Your task to perform on an android device: open the mobile data screen to see how much data has been used Image 0: 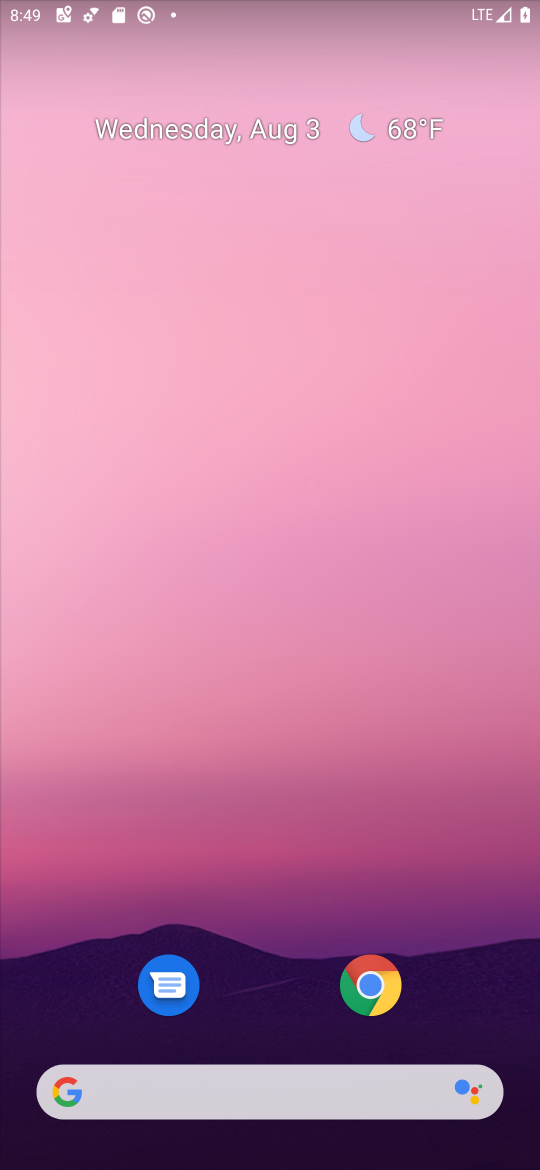
Step 0: drag from (256, 991) to (238, 235)
Your task to perform on an android device: open the mobile data screen to see how much data has been used Image 1: 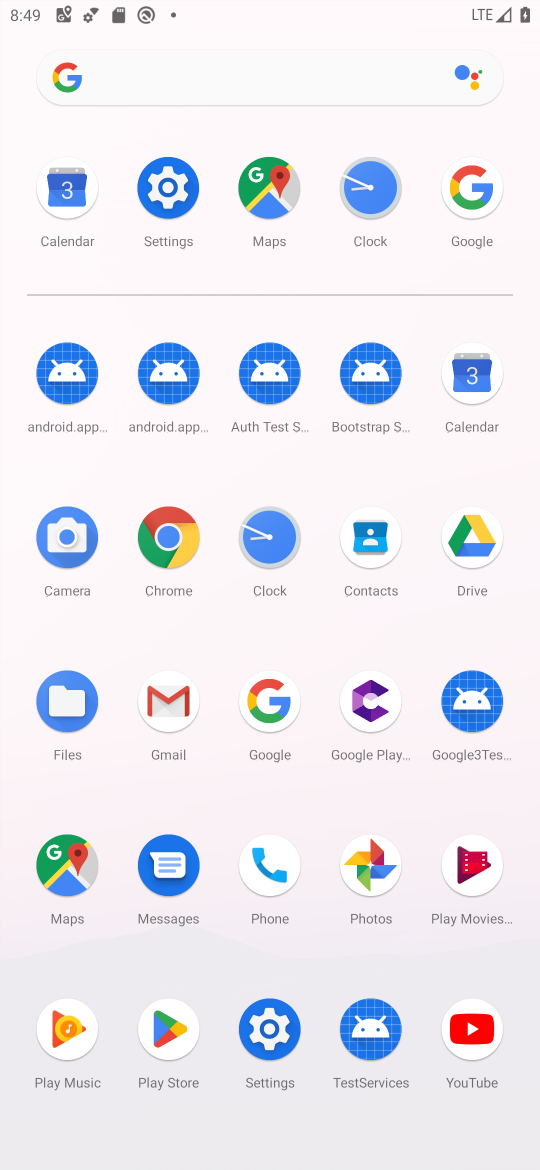
Step 1: click (176, 175)
Your task to perform on an android device: open the mobile data screen to see how much data has been used Image 2: 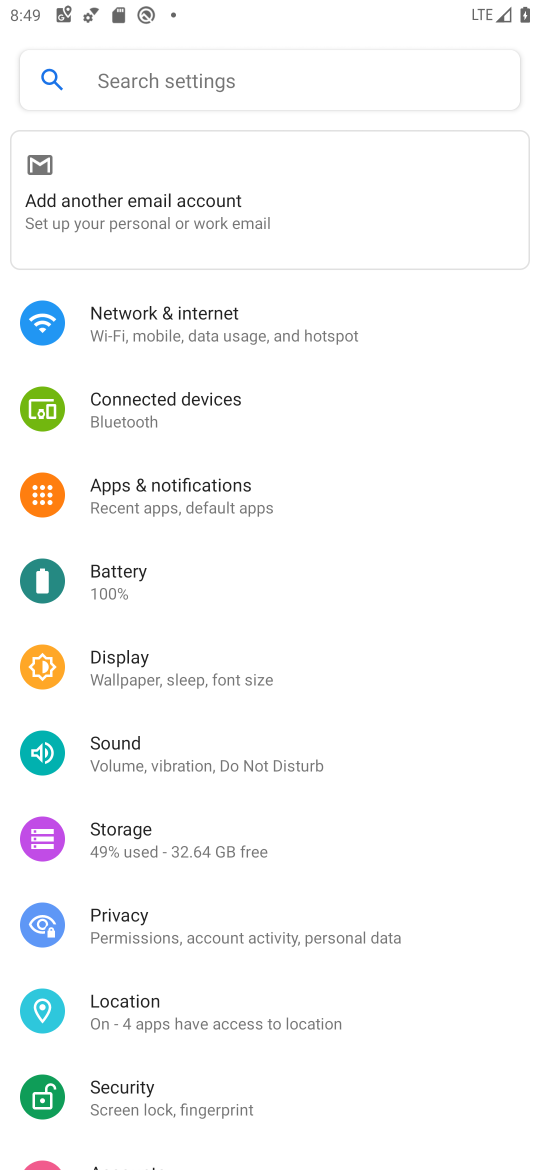
Step 2: click (120, 328)
Your task to perform on an android device: open the mobile data screen to see how much data has been used Image 3: 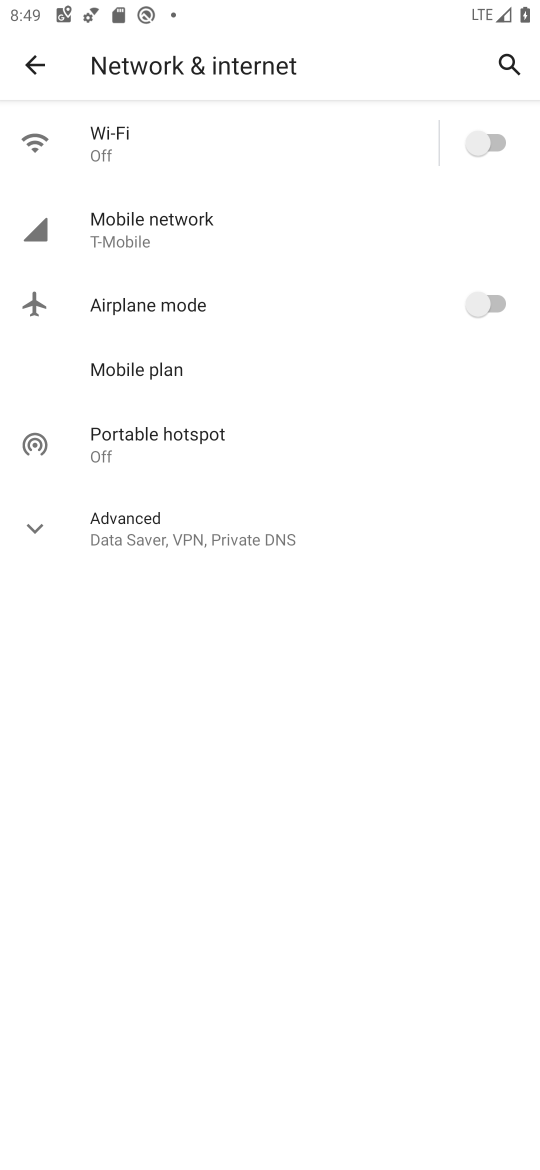
Step 3: click (153, 231)
Your task to perform on an android device: open the mobile data screen to see how much data has been used Image 4: 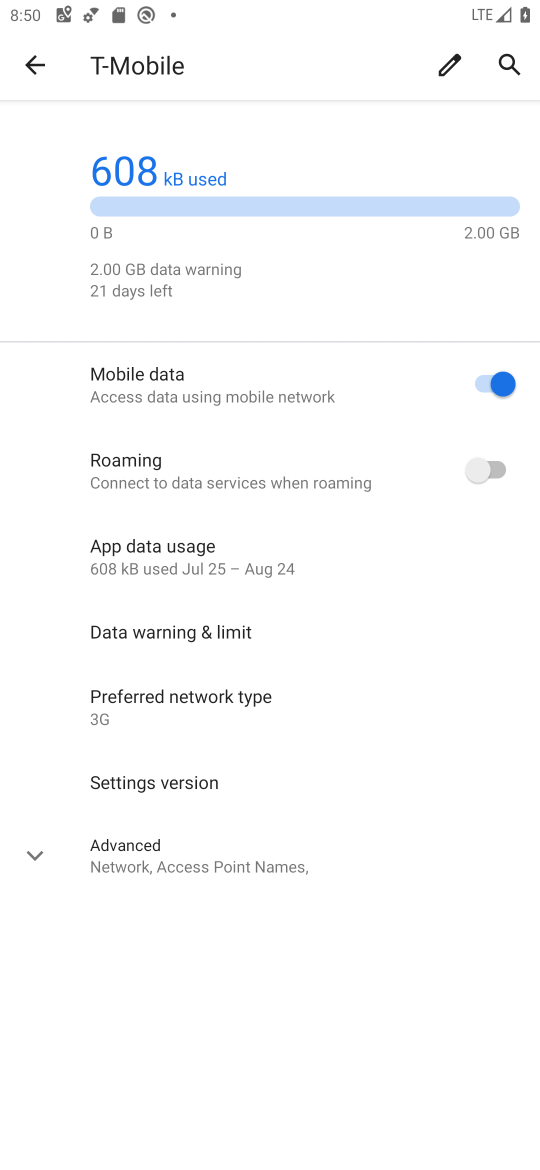
Step 4: task complete